Your task to perform on an android device: empty trash in the gmail app Image 0: 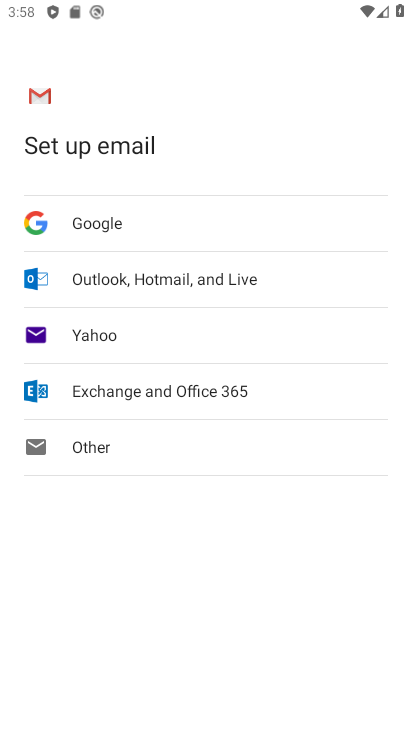
Step 0: press back button
Your task to perform on an android device: empty trash in the gmail app Image 1: 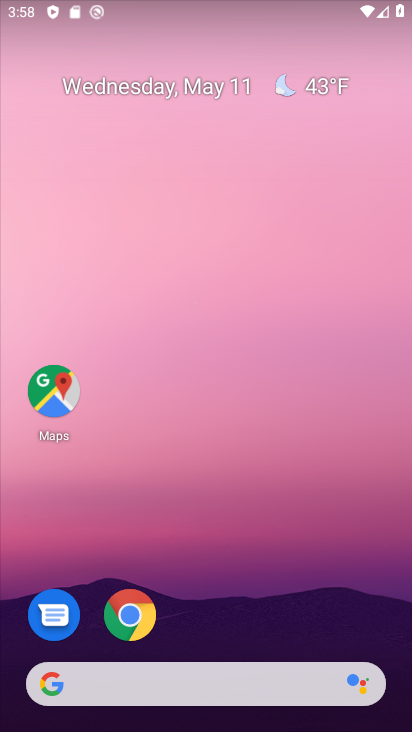
Step 1: drag from (226, 486) to (189, 36)
Your task to perform on an android device: empty trash in the gmail app Image 2: 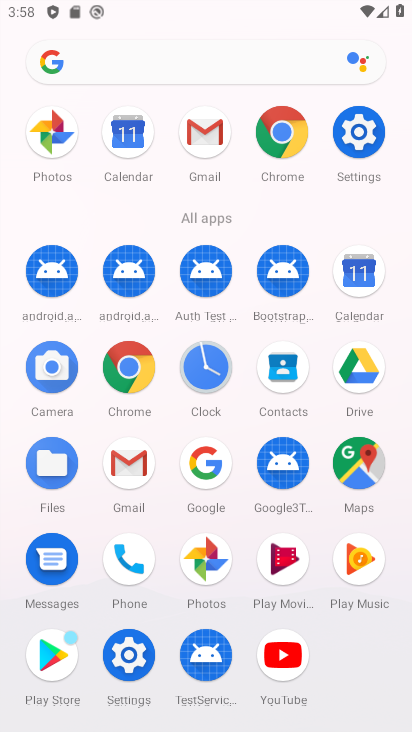
Step 2: click (201, 127)
Your task to perform on an android device: empty trash in the gmail app Image 3: 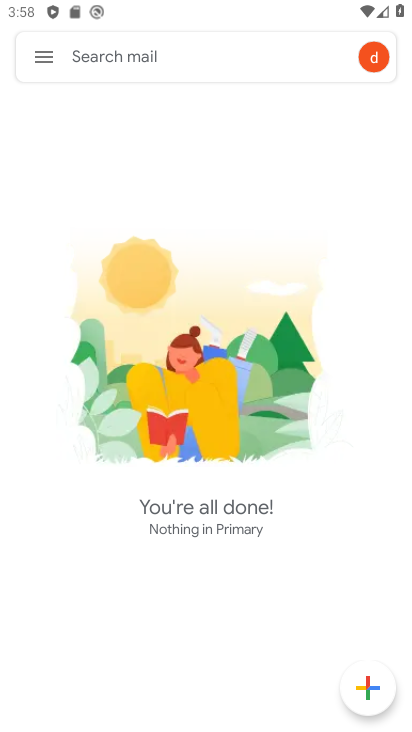
Step 3: click (38, 58)
Your task to perform on an android device: empty trash in the gmail app Image 4: 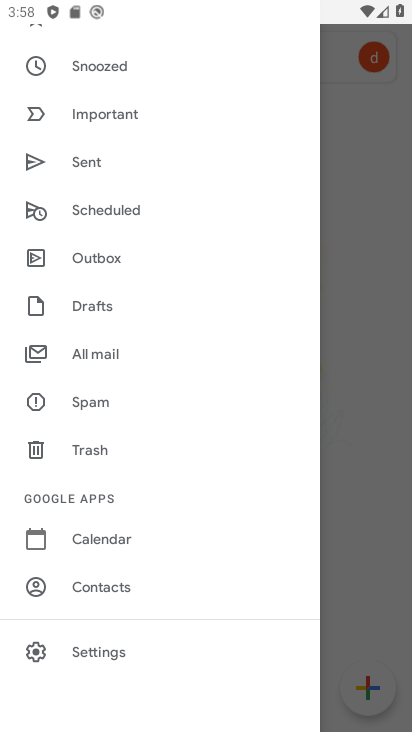
Step 4: click (88, 450)
Your task to perform on an android device: empty trash in the gmail app Image 5: 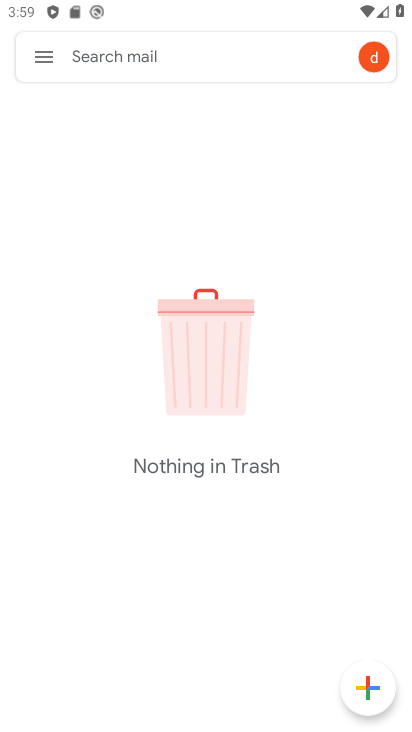
Step 5: click (58, 55)
Your task to perform on an android device: empty trash in the gmail app Image 6: 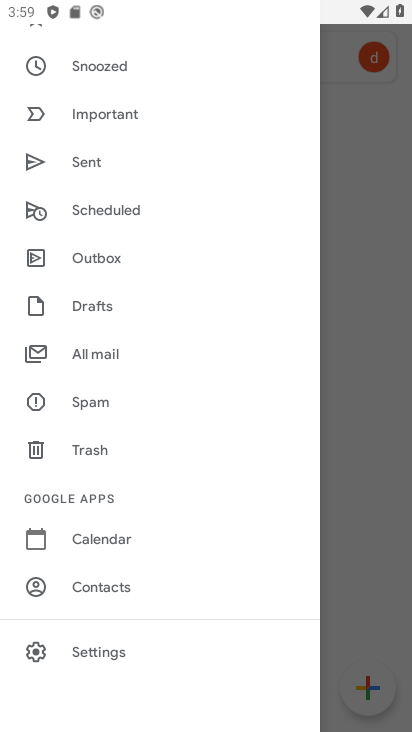
Step 6: click (95, 445)
Your task to perform on an android device: empty trash in the gmail app Image 7: 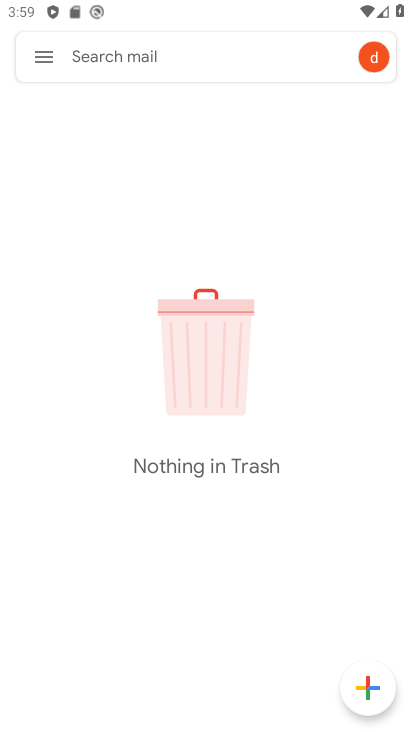
Step 7: task complete